Your task to perform on an android device: Turn on the flashlight Image 0: 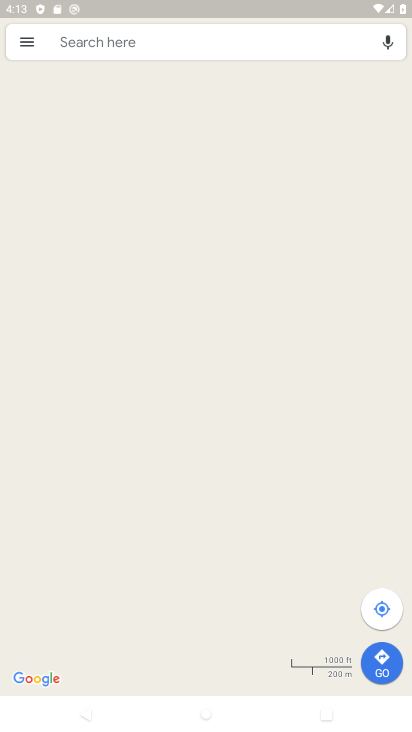
Step 0: drag from (247, 0) to (264, 543)
Your task to perform on an android device: Turn on the flashlight Image 1: 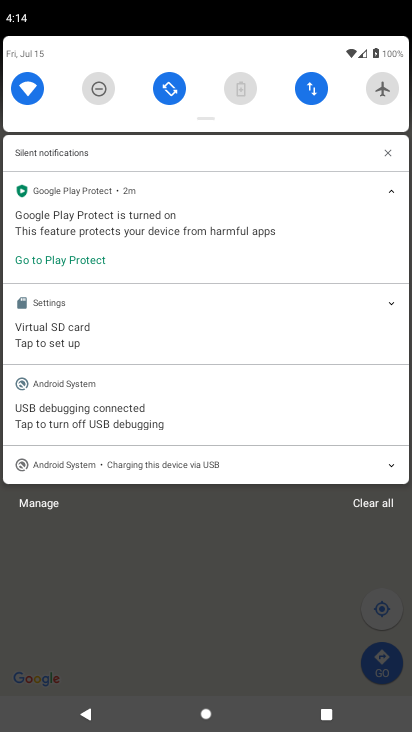
Step 1: task complete